Your task to perform on an android device: turn on the 24-hour format for clock Image 0: 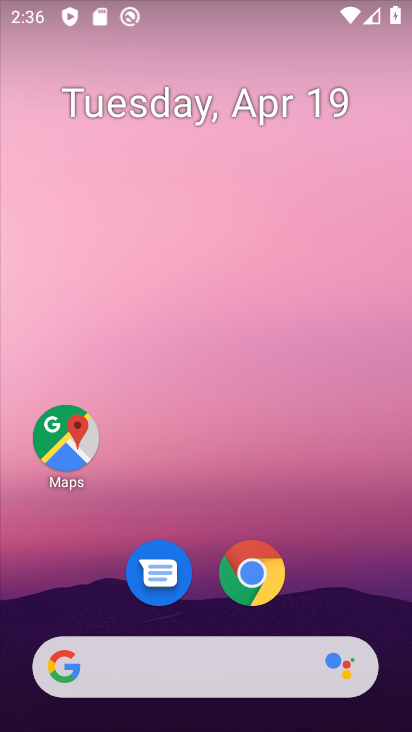
Step 0: drag from (388, 606) to (392, 105)
Your task to perform on an android device: turn on the 24-hour format for clock Image 1: 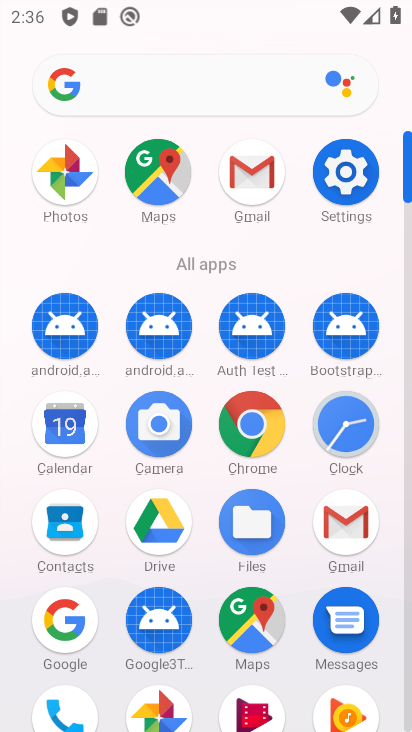
Step 1: click (350, 421)
Your task to perform on an android device: turn on the 24-hour format for clock Image 2: 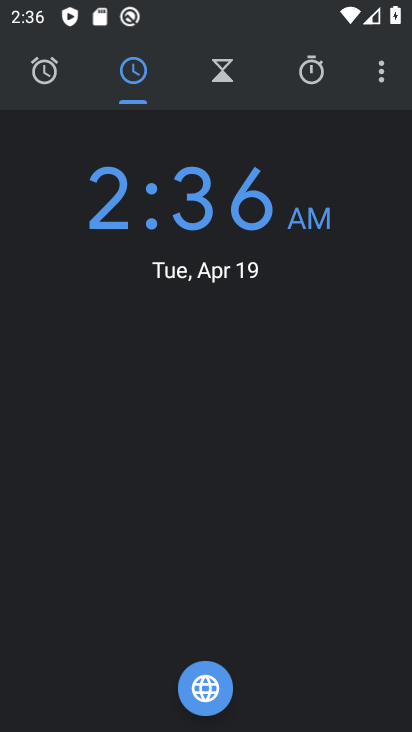
Step 2: click (379, 72)
Your task to perform on an android device: turn on the 24-hour format for clock Image 3: 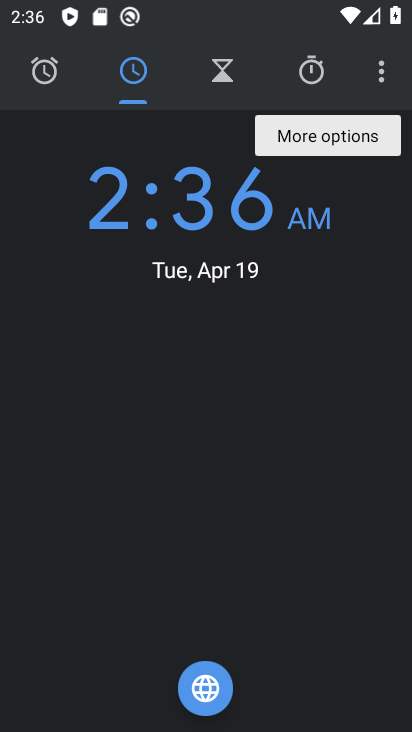
Step 3: click (379, 72)
Your task to perform on an android device: turn on the 24-hour format for clock Image 4: 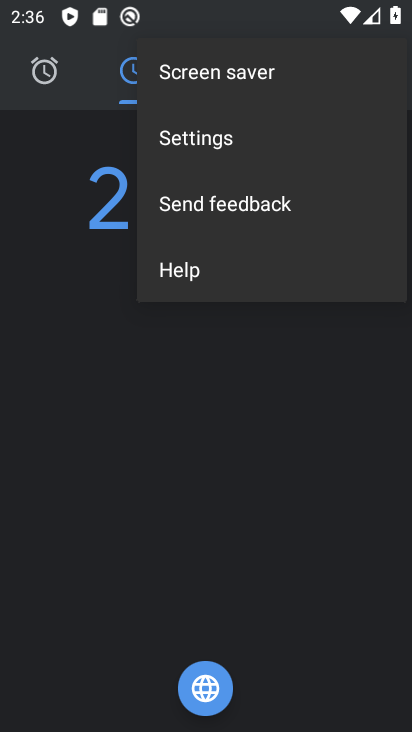
Step 4: click (205, 143)
Your task to perform on an android device: turn on the 24-hour format for clock Image 5: 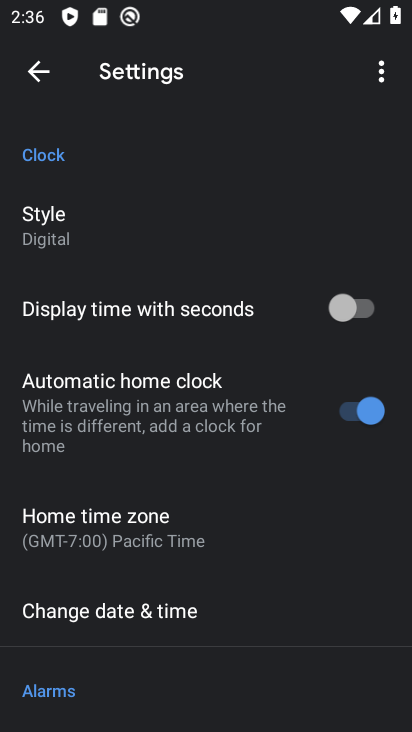
Step 5: click (151, 610)
Your task to perform on an android device: turn on the 24-hour format for clock Image 6: 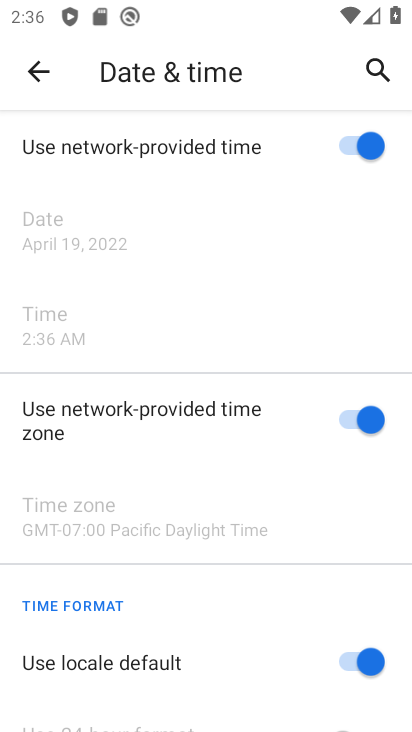
Step 6: drag from (267, 592) to (288, 246)
Your task to perform on an android device: turn on the 24-hour format for clock Image 7: 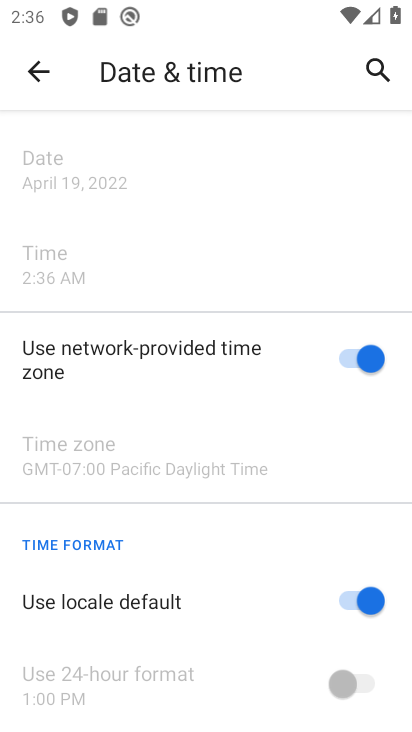
Step 7: click (345, 597)
Your task to perform on an android device: turn on the 24-hour format for clock Image 8: 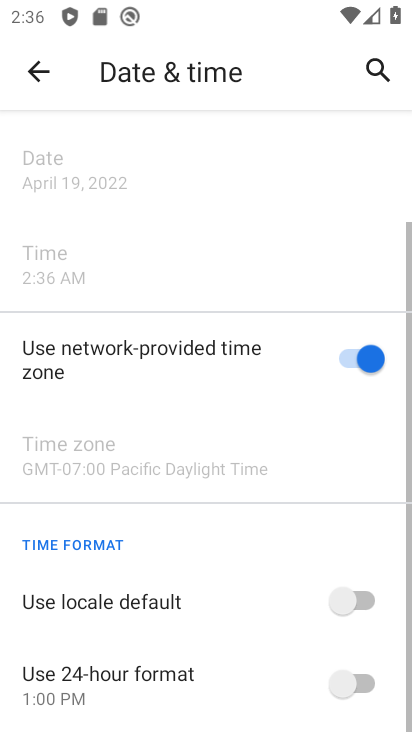
Step 8: click (362, 684)
Your task to perform on an android device: turn on the 24-hour format for clock Image 9: 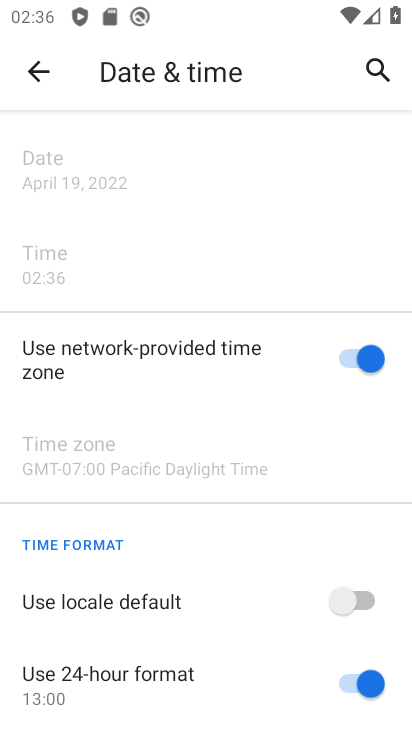
Step 9: task complete